Your task to perform on an android device: Open the stopwatch Image 0: 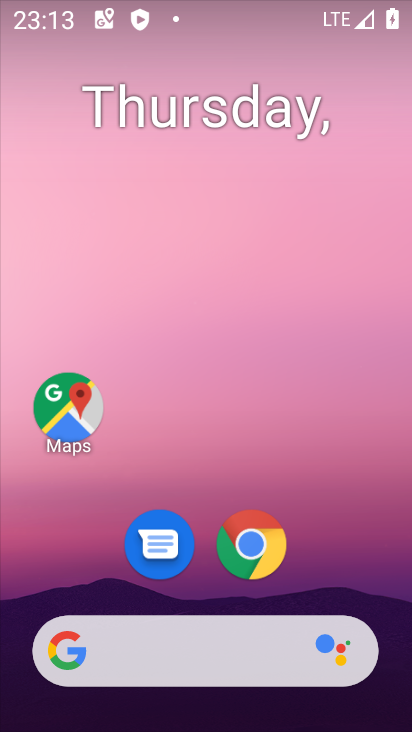
Step 0: drag from (346, 578) to (289, 105)
Your task to perform on an android device: Open the stopwatch Image 1: 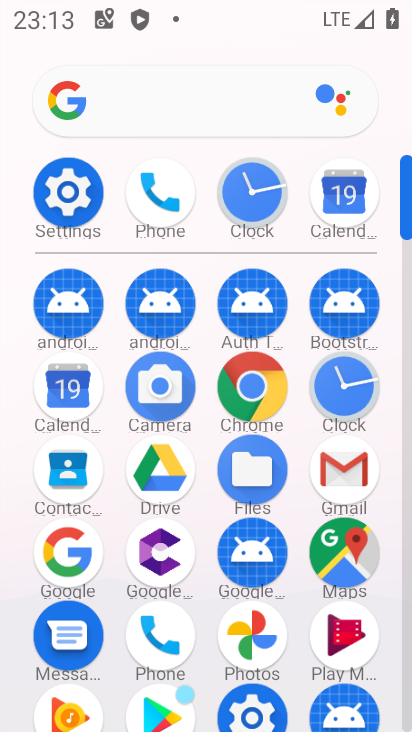
Step 1: click (344, 393)
Your task to perform on an android device: Open the stopwatch Image 2: 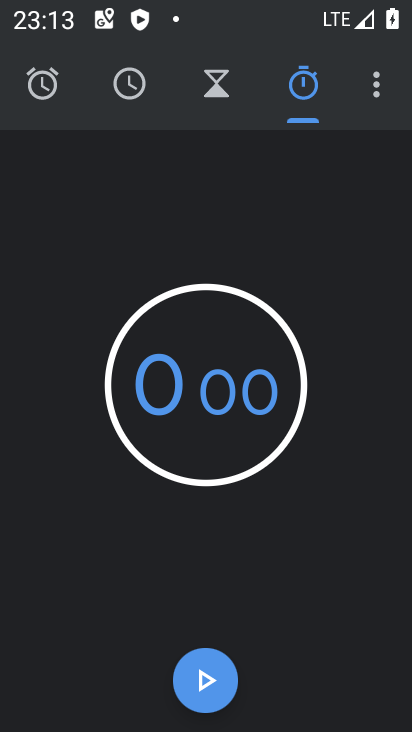
Step 2: task complete